Your task to perform on an android device: Open Chrome and go to settings Image 0: 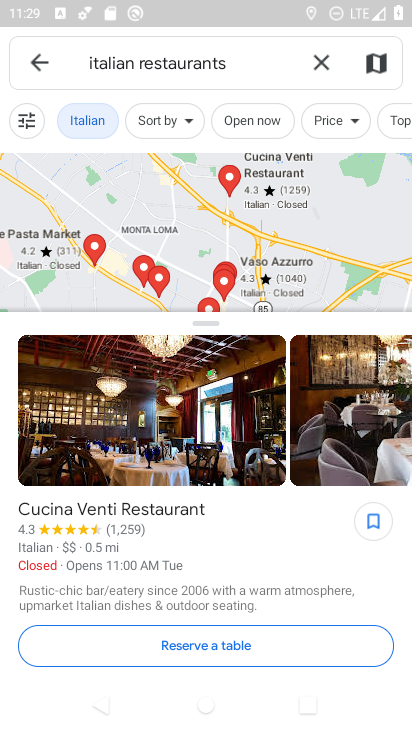
Step 0: press home button
Your task to perform on an android device: Open Chrome and go to settings Image 1: 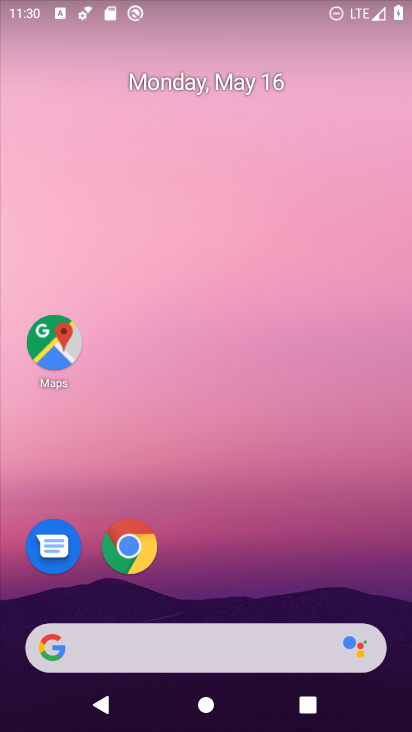
Step 1: click (140, 553)
Your task to perform on an android device: Open Chrome and go to settings Image 2: 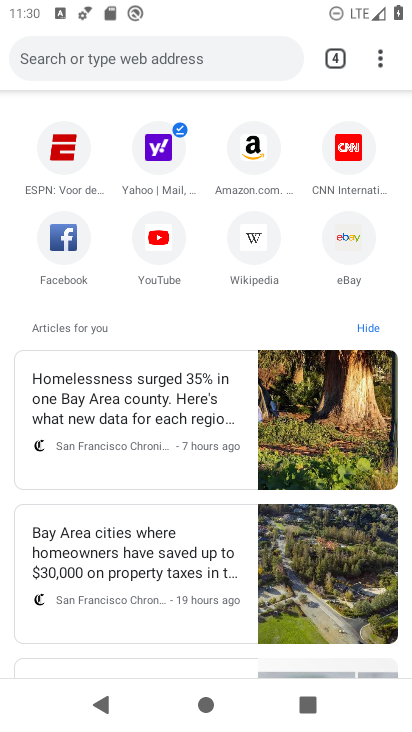
Step 2: task complete